Your task to perform on an android device: turn on improve location accuracy Image 0: 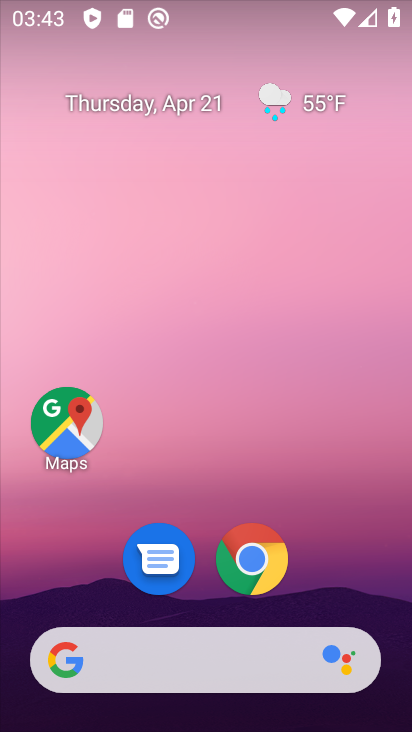
Step 0: drag from (348, 557) to (252, 73)
Your task to perform on an android device: turn on improve location accuracy Image 1: 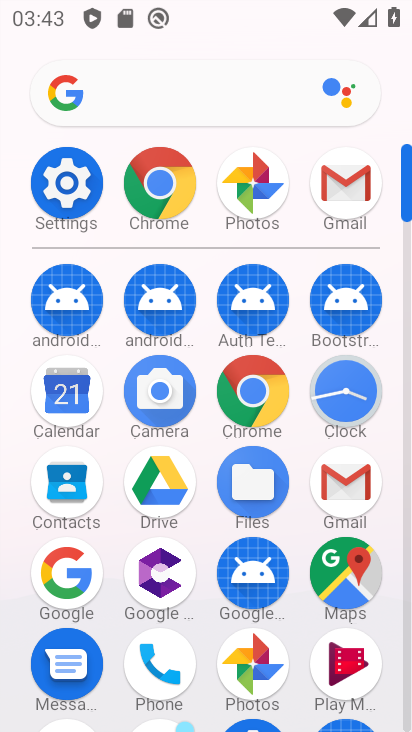
Step 1: drag from (295, 646) to (246, 225)
Your task to perform on an android device: turn on improve location accuracy Image 2: 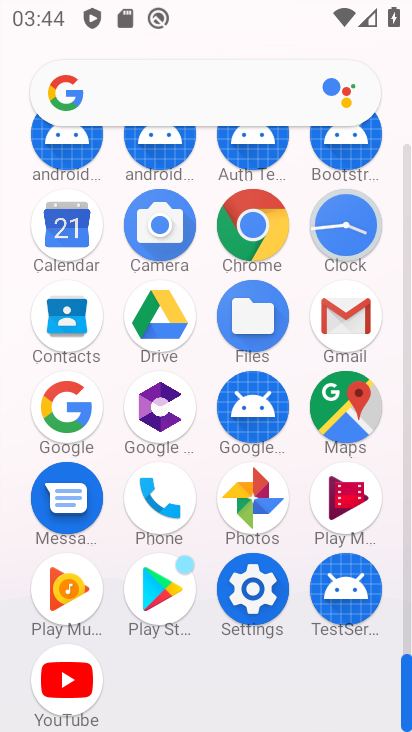
Step 2: click (241, 591)
Your task to perform on an android device: turn on improve location accuracy Image 3: 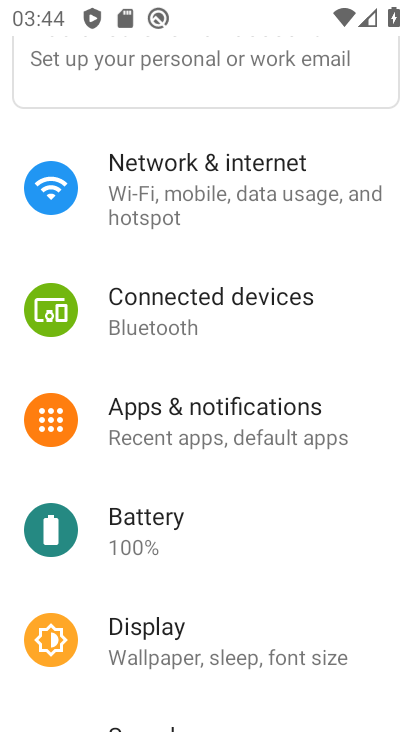
Step 3: drag from (271, 650) to (188, 348)
Your task to perform on an android device: turn on improve location accuracy Image 4: 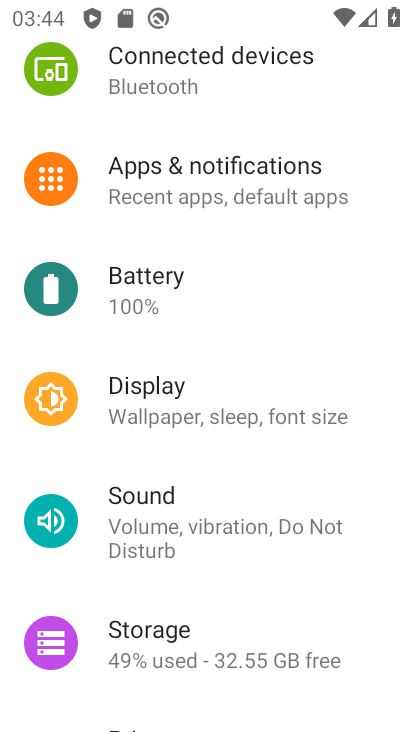
Step 4: drag from (175, 643) to (77, 210)
Your task to perform on an android device: turn on improve location accuracy Image 5: 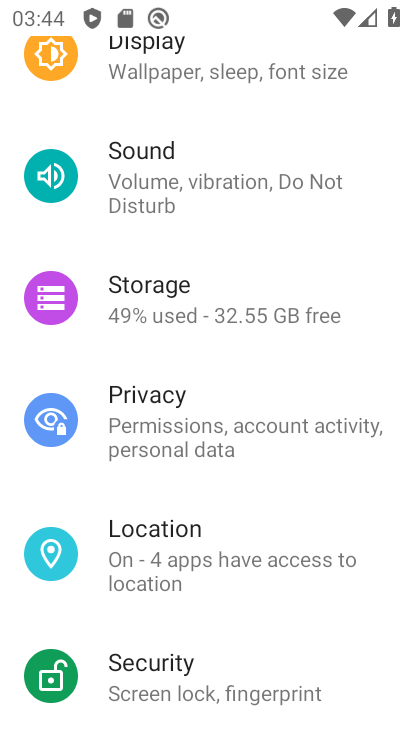
Step 5: click (167, 575)
Your task to perform on an android device: turn on improve location accuracy Image 6: 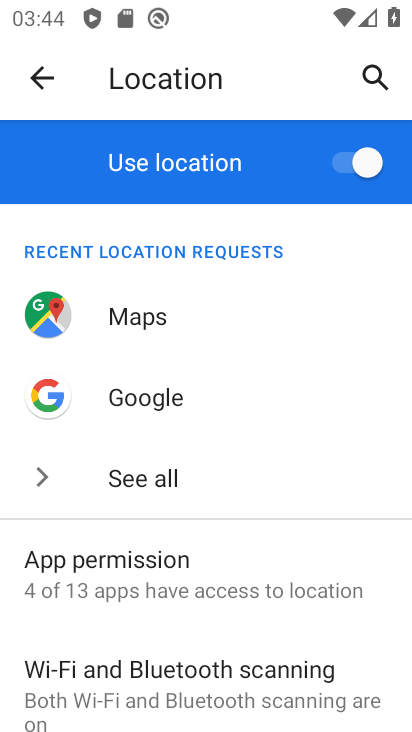
Step 6: drag from (185, 647) to (163, 218)
Your task to perform on an android device: turn on improve location accuracy Image 7: 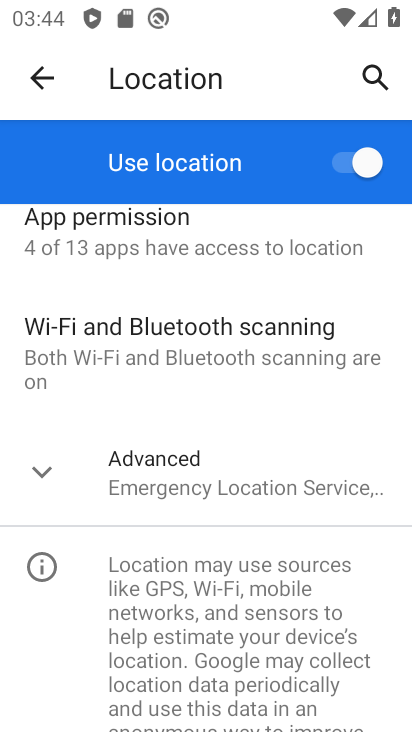
Step 7: click (203, 475)
Your task to perform on an android device: turn on improve location accuracy Image 8: 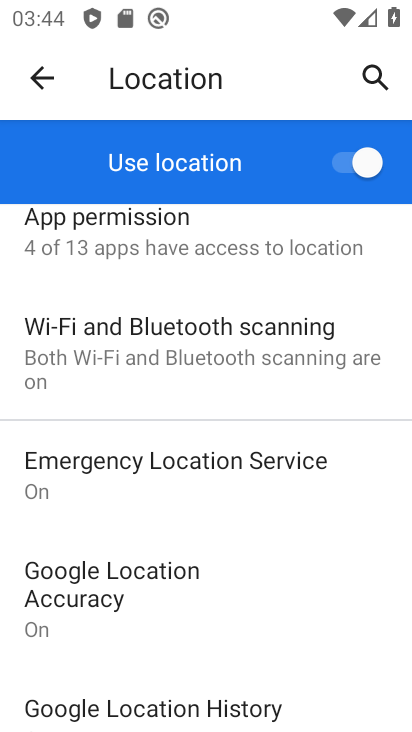
Step 8: click (96, 599)
Your task to perform on an android device: turn on improve location accuracy Image 9: 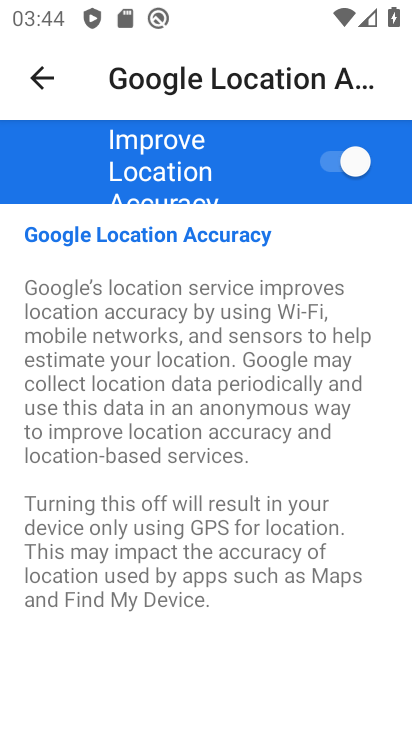
Step 9: task complete